Your task to perform on an android device: Go to calendar. Show me events next week Image 0: 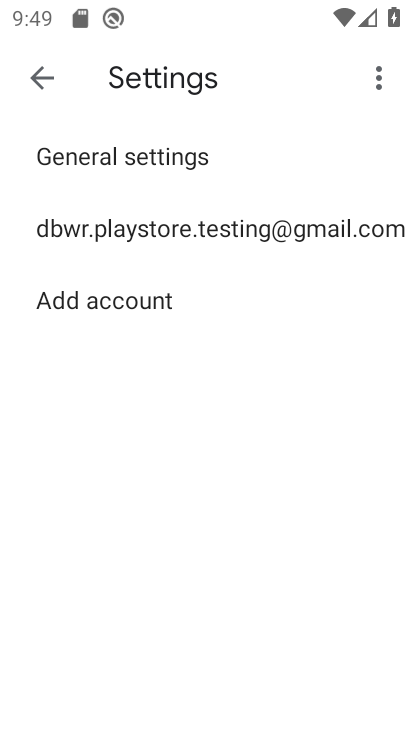
Step 0: press home button
Your task to perform on an android device: Go to calendar. Show me events next week Image 1: 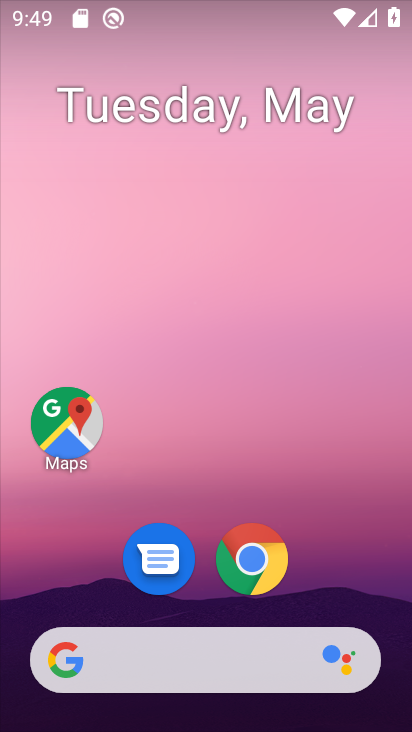
Step 1: drag from (394, 651) to (306, 81)
Your task to perform on an android device: Go to calendar. Show me events next week Image 2: 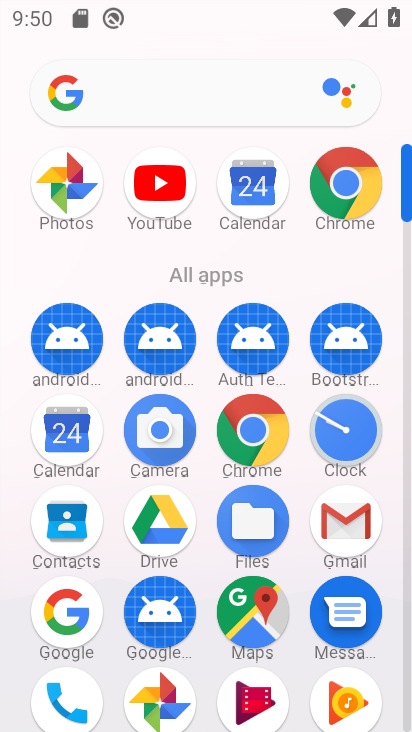
Step 2: click (78, 438)
Your task to perform on an android device: Go to calendar. Show me events next week Image 3: 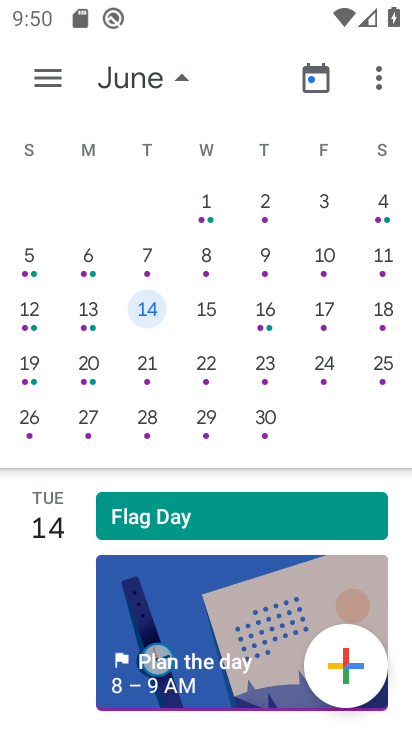
Step 3: task complete